Your task to perform on an android device: Open the web browser Image 0: 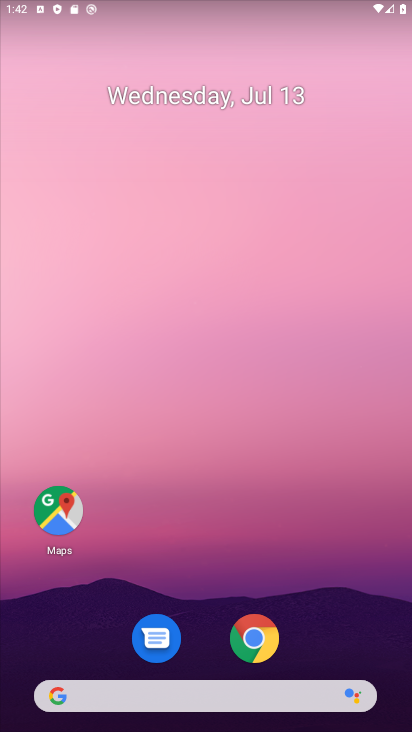
Step 0: click (261, 632)
Your task to perform on an android device: Open the web browser Image 1: 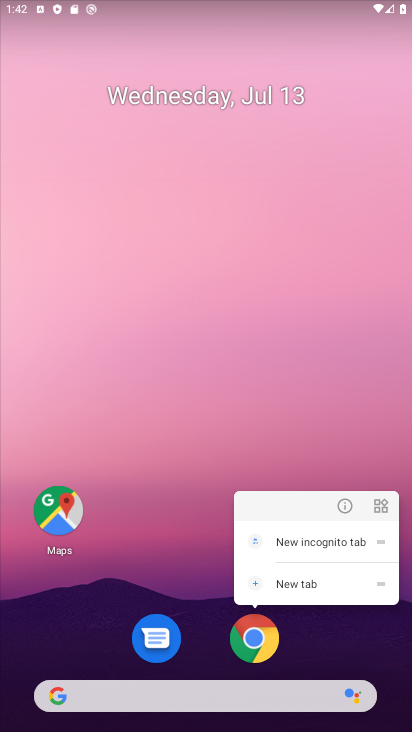
Step 1: click (261, 632)
Your task to perform on an android device: Open the web browser Image 2: 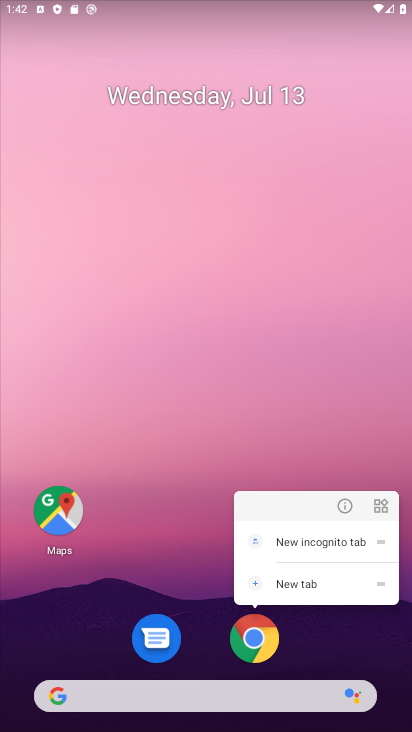
Step 2: click (261, 632)
Your task to perform on an android device: Open the web browser Image 3: 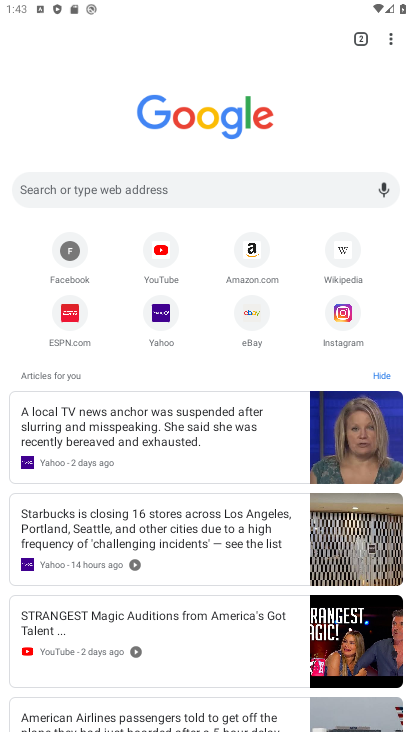
Step 3: task complete